Your task to perform on an android device: open device folders in google photos Image 0: 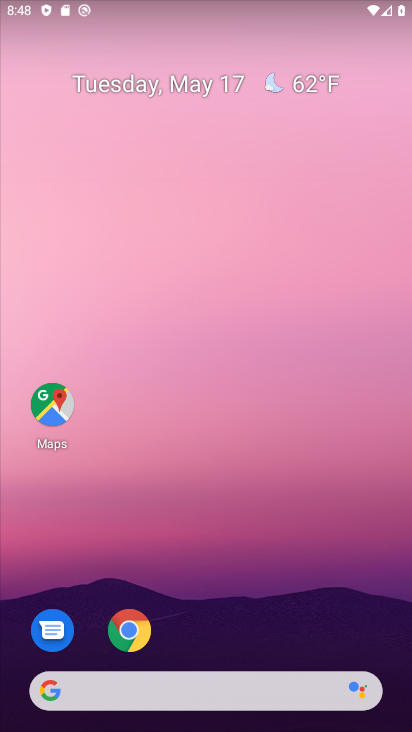
Step 0: drag from (246, 652) to (212, 281)
Your task to perform on an android device: open device folders in google photos Image 1: 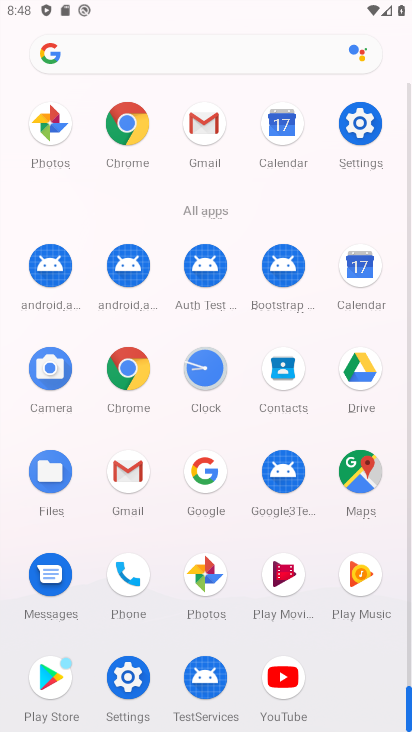
Step 1: click (47, 143)
Your task to perform on an android device: open device folders in google photos Image 2: 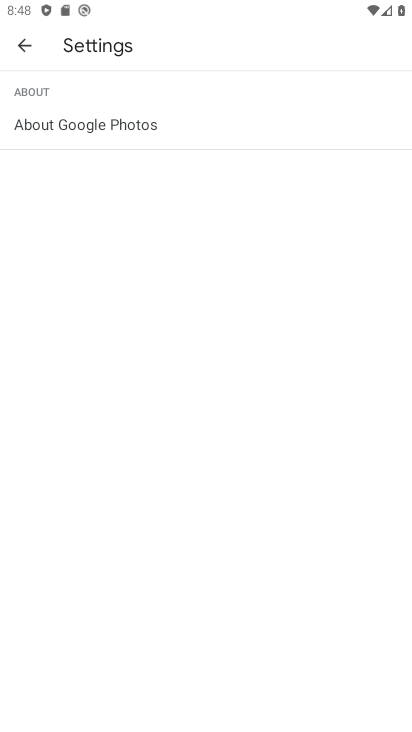
Step 2: click (20, 54)
Your task to perform on an android device: open device folders in google photos Image 3: 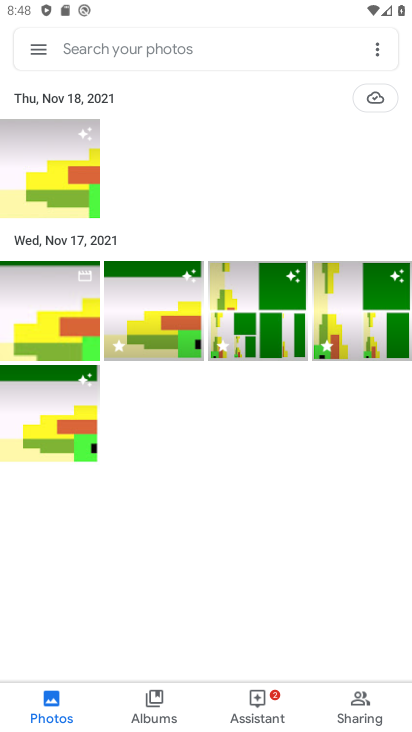
Step 3: click (40, 50)
Your task to perform on an android device: open device folders in google photos Image 4: 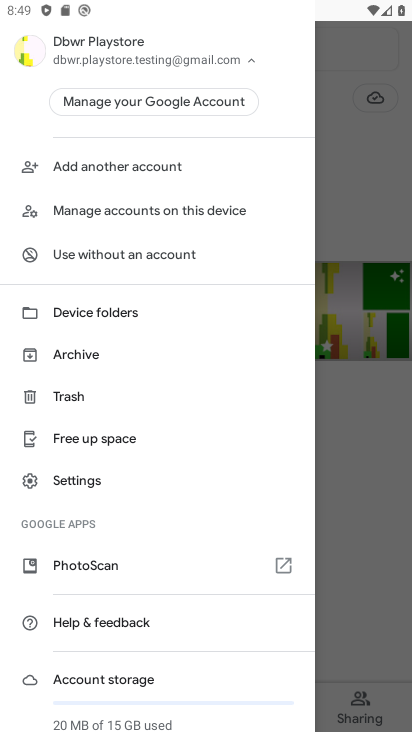
Step 4: click (79, 323)
Your task to perform on an android device: open device folders in google photos Image 5: 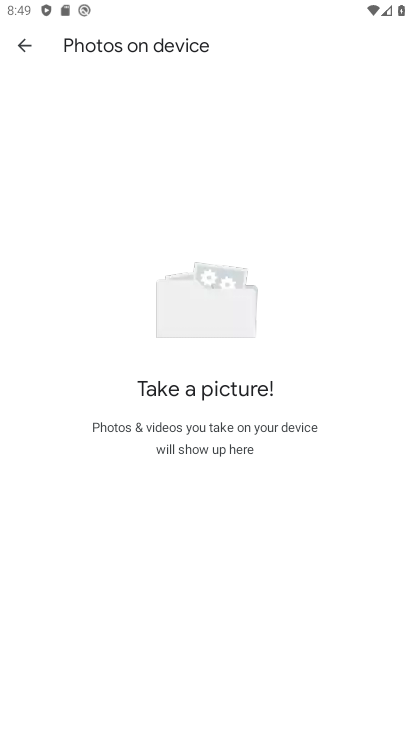
Step 5: task complete